Your task to perform on an android device: read, delete, or share a saved page in the chrome app Image 0: 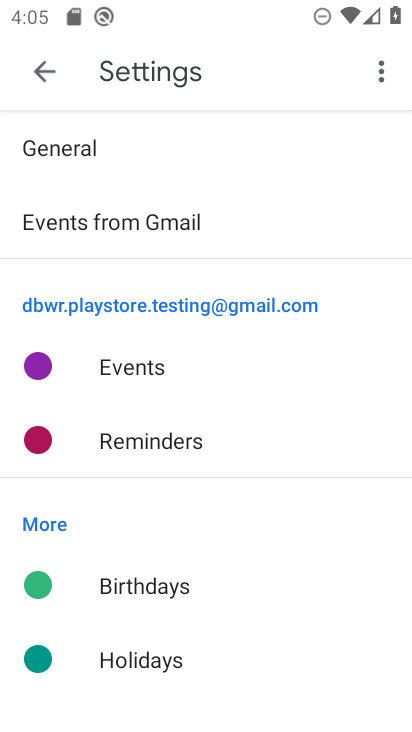
Step 0: press home button
Your task to perform on an android device: read, delete, or share a saved page in the chrome app Image 1: 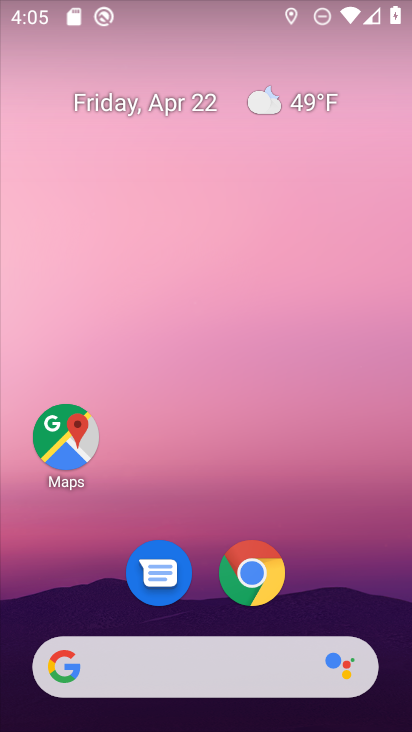
Step 1: click (272, 570)
Your task to perform on an android device: read, delete, or share a saved page in the chrome app Image 2: 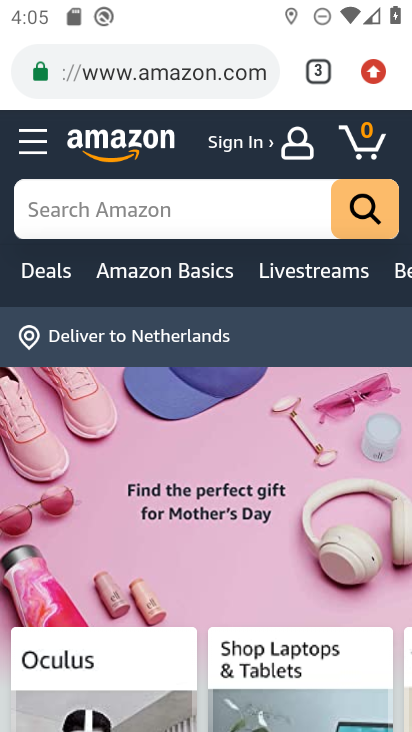
Step 2: click (366, 66)
Your task to perform on an android device: read, delete, or share a saved page in the chrome app Image 3: 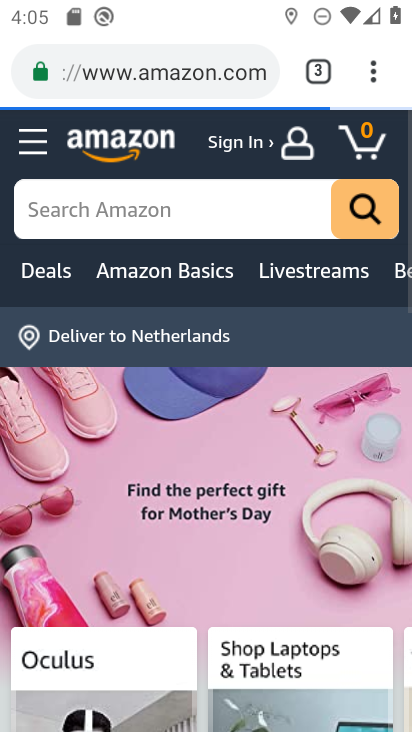
Step 3: click (371, 69)
Your task to perform on an android device: read, delete, or share a saved page in the chrome app Image 4: 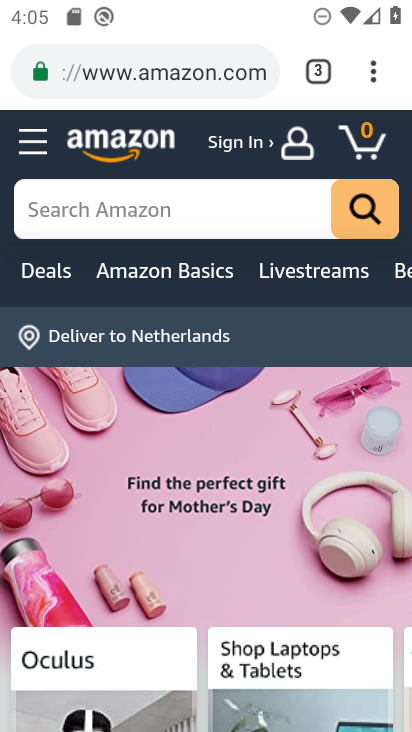
Step 4: click (371, 77)
Your task to perform on an android device: read, delete, or share a saved page in the chrome app Image 5: 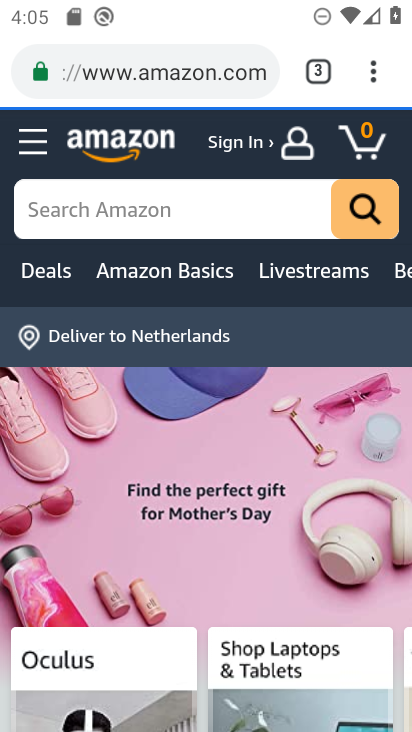
Step 5: click (376, 66)
Your task to perform on an android device: read, delete, or share a saved page in the chrome app Image 6: 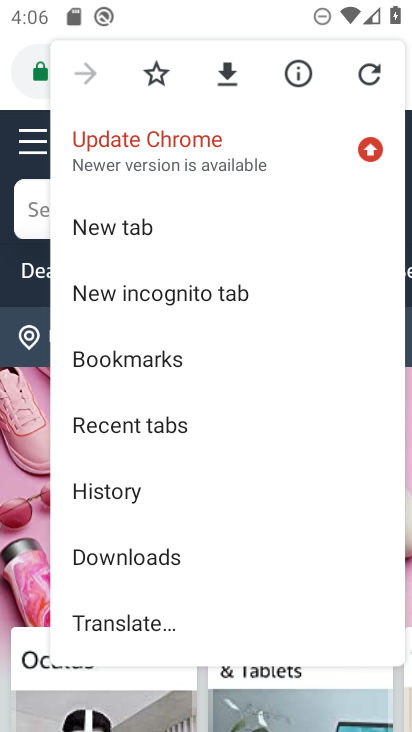
Step 6: drag from (207, 537) to (251, 251)
Your task to perform on an android device: read, delete, or share a saved page in the chrome app Image 7: 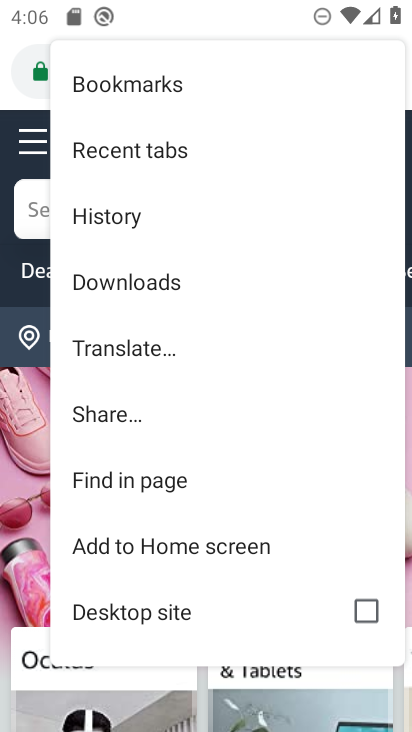
Step 7: click (204, 287)
Your task to perform on an android device: read, delete, or share a saved page in the chrome app Image 8: 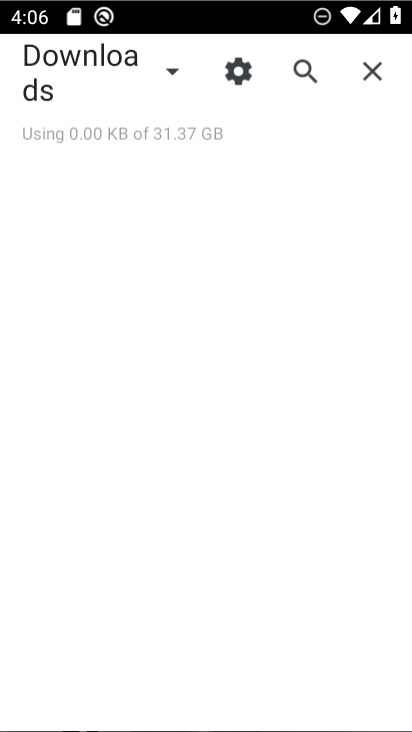
Step 8: task complete